Your task to perform on an android device: Go to settings Image 0: 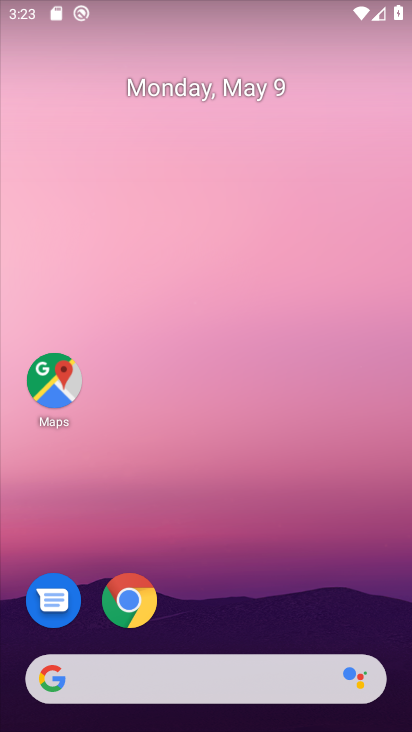
Step 0: drag from (233, 621) to (351, 90)
Your task to perform on an android device: Go to settings Image 1: 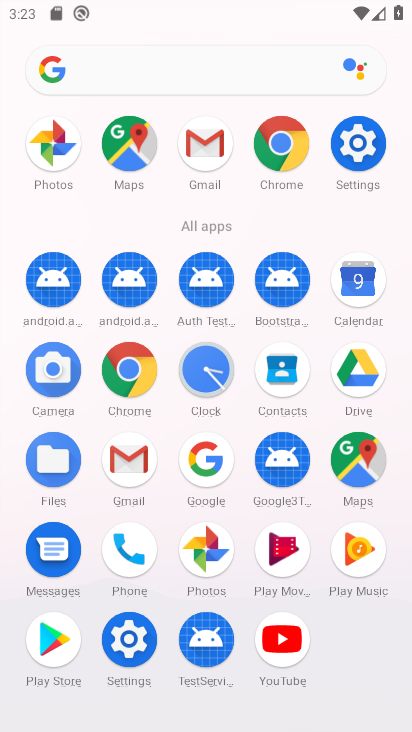
Step 1: click (132, 652)
Your task to perform on an android device: Go to settings Image 2: 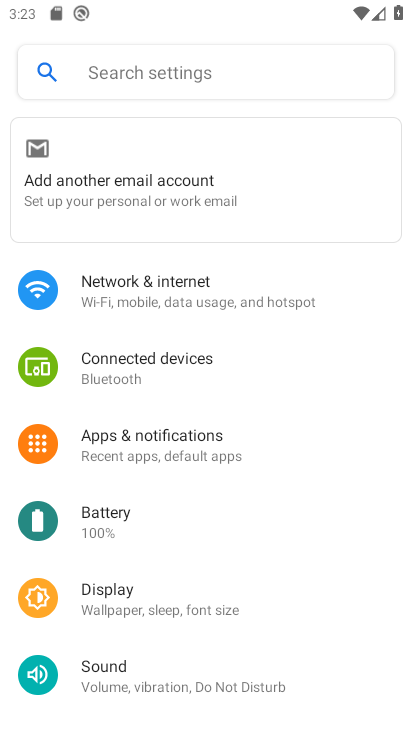
Step 2: task complete